Your task to perform on an android device: open chrome and create a bookmark for the current page Image 0: 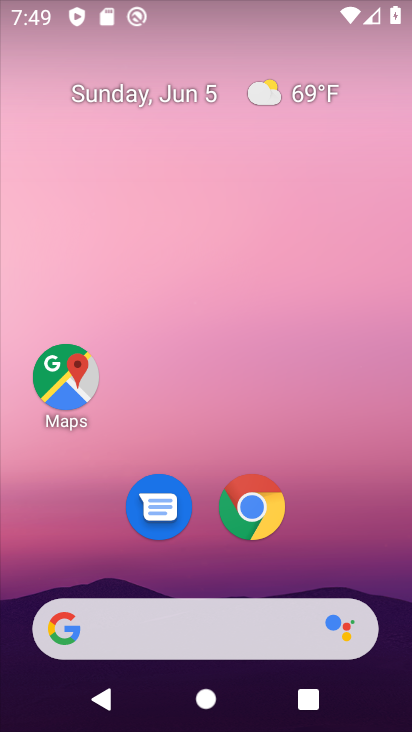
Step 0: drag from (319, 448) to (244, 23)
Your task to perform on an android device: open chrome and create a bookmark for the current page Image 1: 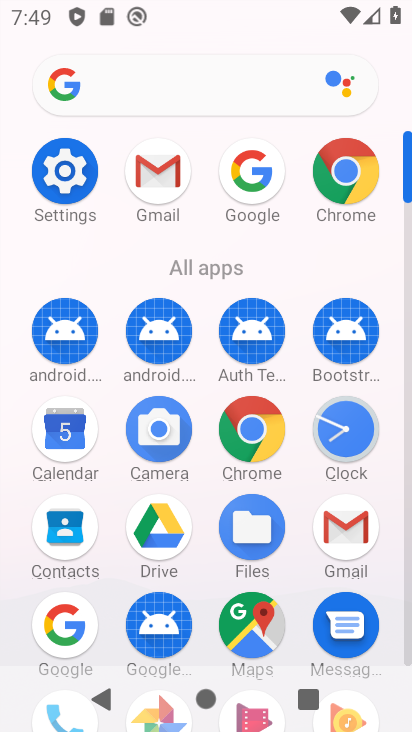
Step 1: click (343, 162)
Your task to perform on an android device: open chrome and create a bookmark for the current page Image 2: 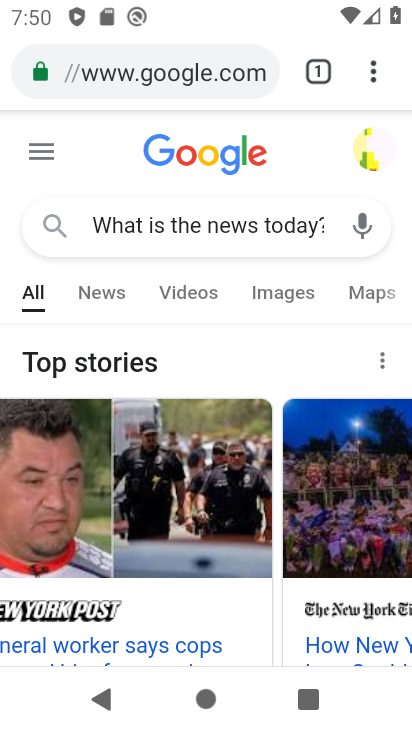
Step 2: drag from (375, 63) to (174, 265)
Your task to perform on an android device: open chrome and create a bookmark for the current page Image 3: 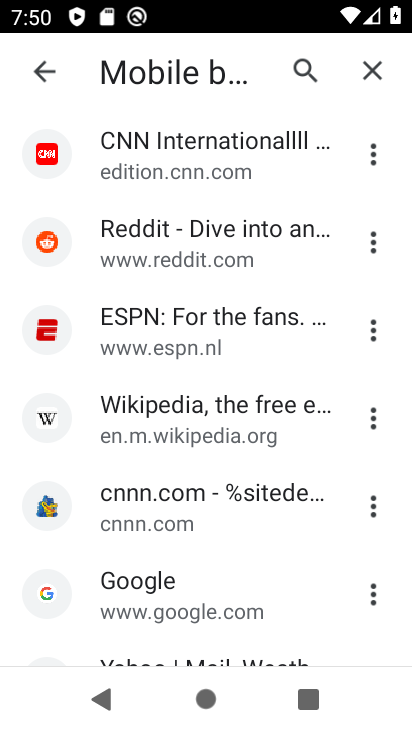
Step 3: drag from (244, 569) to (257, 228)
Your task to perform on an android device: open chrome and create a bookmark for the current page Image 4: 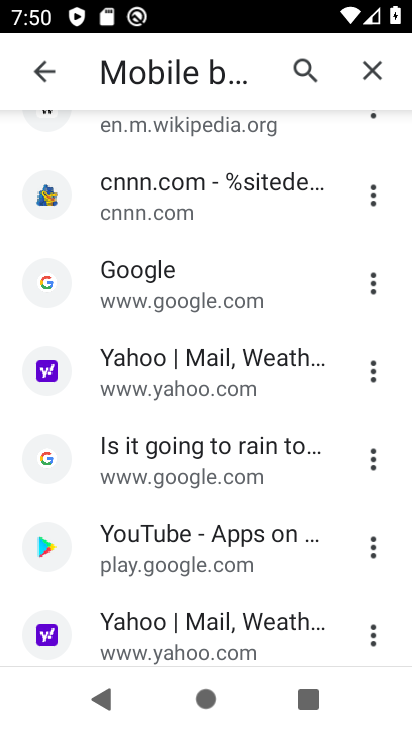
Step 4: click (205, 194)
Your task to perform on an android device: open chrome and create a bookmark for the current page Image 5: 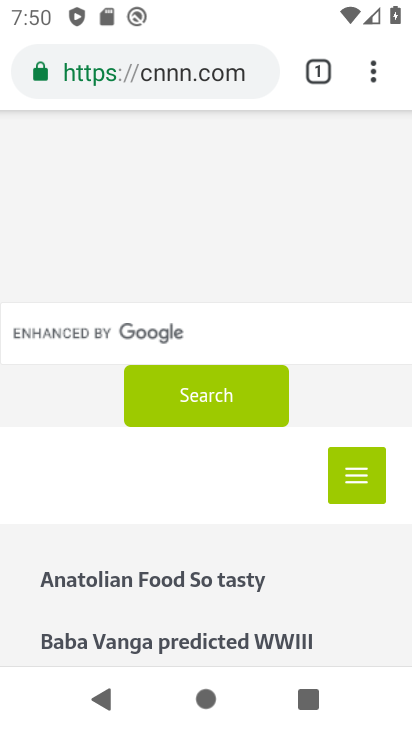
Step 5: task complete